Your task to perform on an android device: set the stopwatch Image 0: 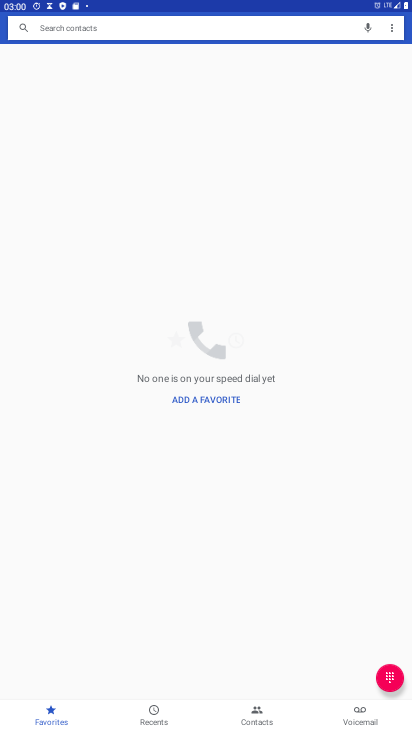
Step 0: press home button
Your task to perform on an android device: set the stopwatch Image 1: 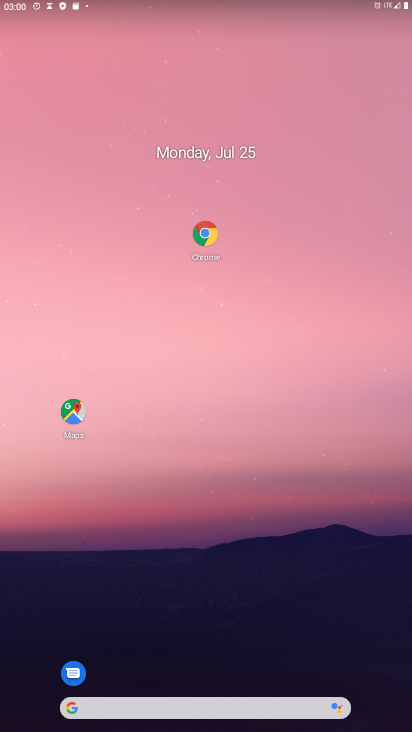
Step 1: drag from (207, 694) to (257, 17)
Your task to perform on an android device: set the stopwatch Image 2: 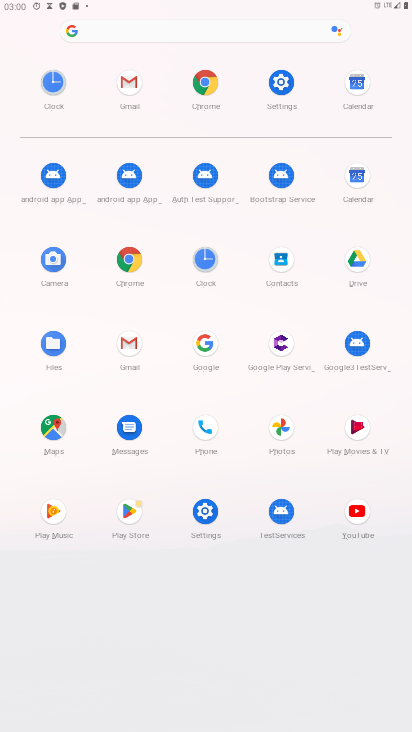
Step 2: click (195, 268)
Your task to perform on an android device: set the stopwatch Image 3: 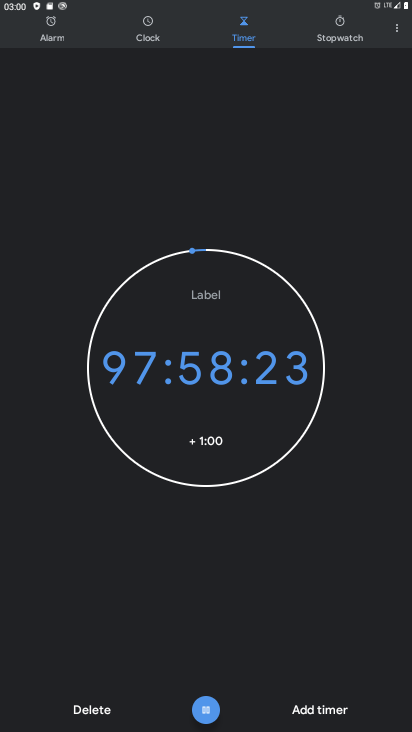
Step 3: task complete